Your task to perform on an android device: Open Google Chrome Image 0: 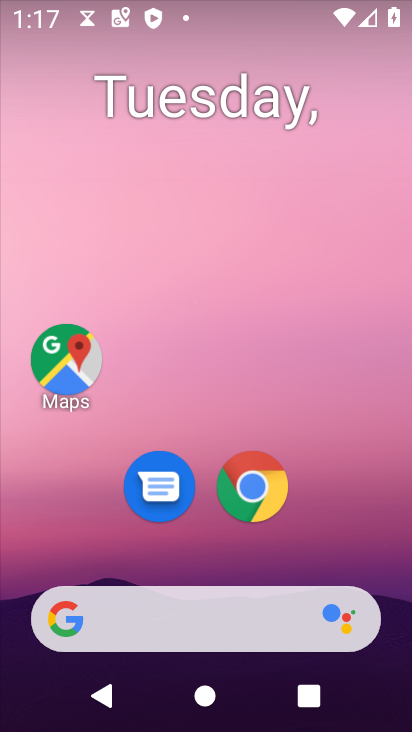
Step 0: drag from (392, 563) to (313, 245)
Your task to perform on an android device: Open Google Chrome Image 1: 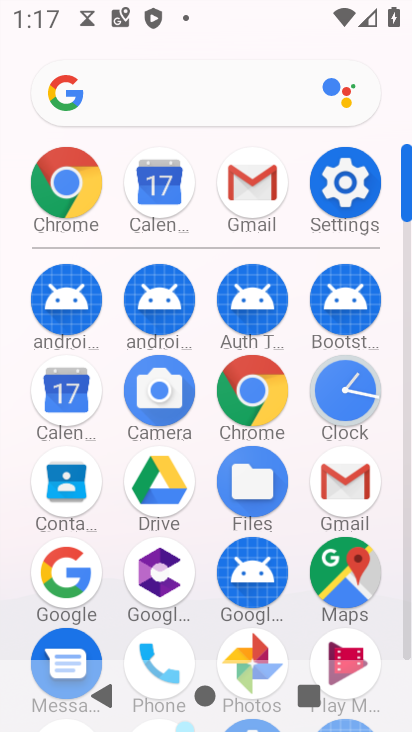
Step 1: click (80, 205)
Your task to perform on an android device: Open Google Chrome Image 2: 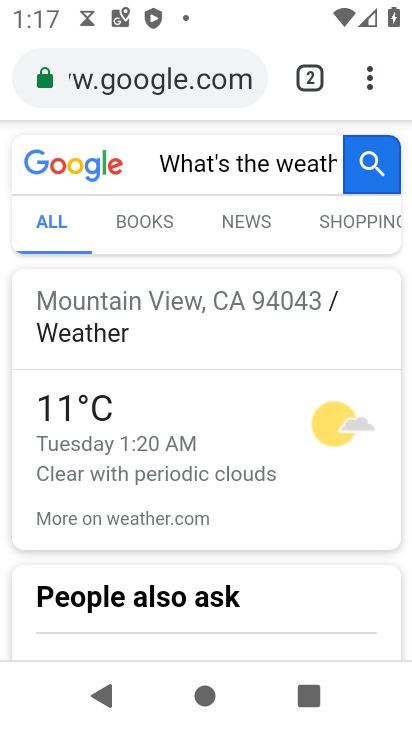
Step 2: task complete